Your task to perform on an android device: Open Youtube and go to "Your channel" Image 0: 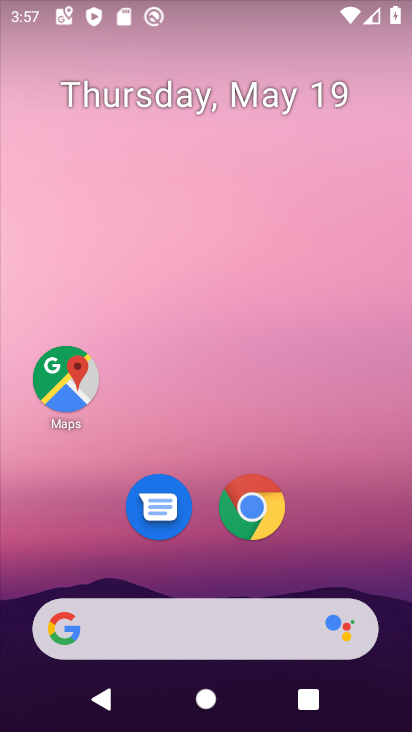
Step 0: drag from (391, 649) to (396, 171)
Your task to perform on an android device: Open Youtube and go to "Your channel" Image 1: 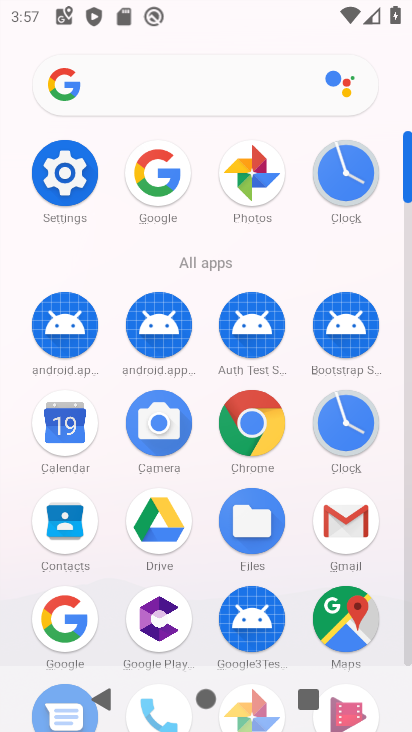
Step 1: drag from (409, 136) to (408, 56)
Your task to perform on an android device: Open Youtube and go to "Your channel" Image 2: 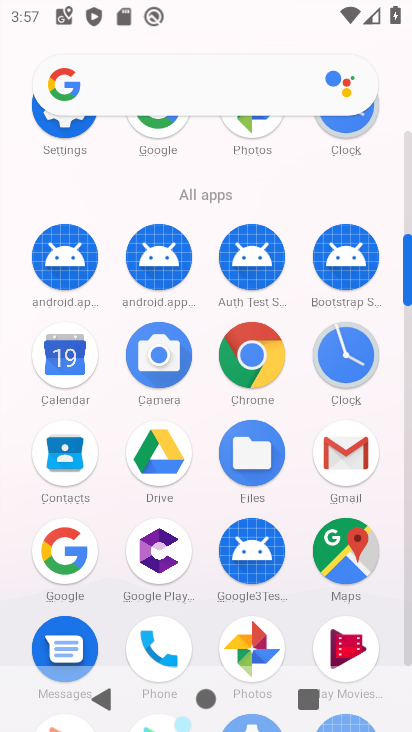
Step 2: drag from (406, 195) to (405, 137)
Your task to perform on an android device: Open Youtube and go to "Your channel" Image 3: 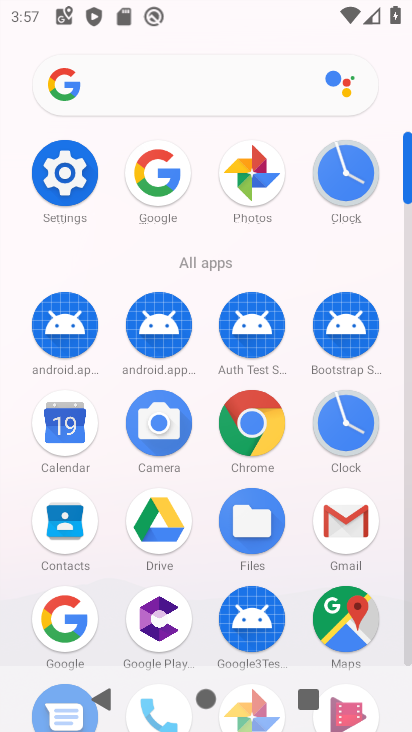
Step 3: click (408, 145)
Your task to perform on an android device: Open Youtube and go to "Your channel" Image 4: 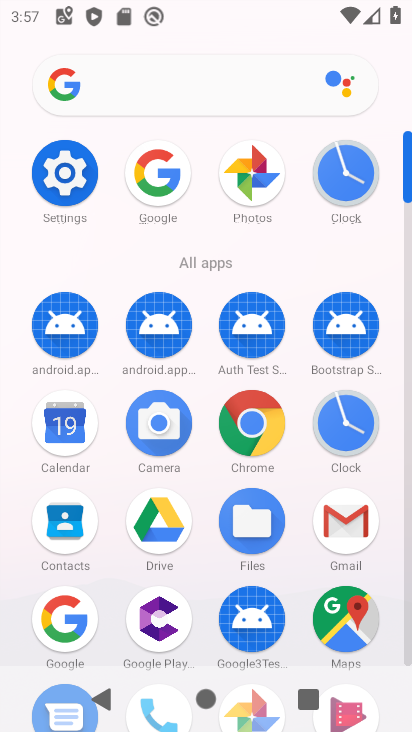
Step 4: drag from (406, 149) to (405, 74)
Your task to perform on an android device: Open Youtube and go to "Your channel" Image 5: 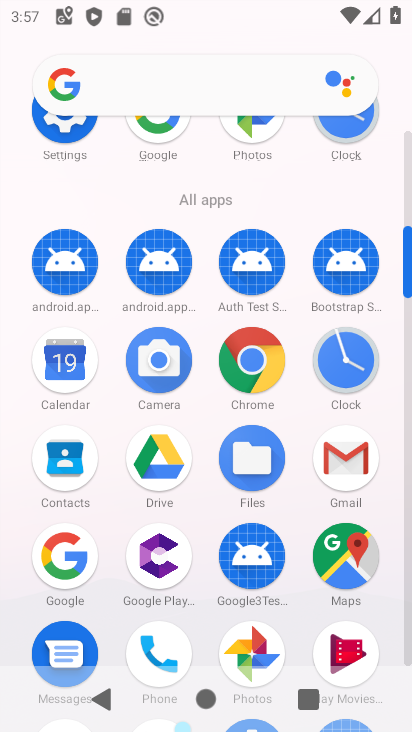
Step 5: drag from (409, 232) to (408, 127)
Your task to perform on an android device: Open Youtube and go to "Your channel" Image 6: 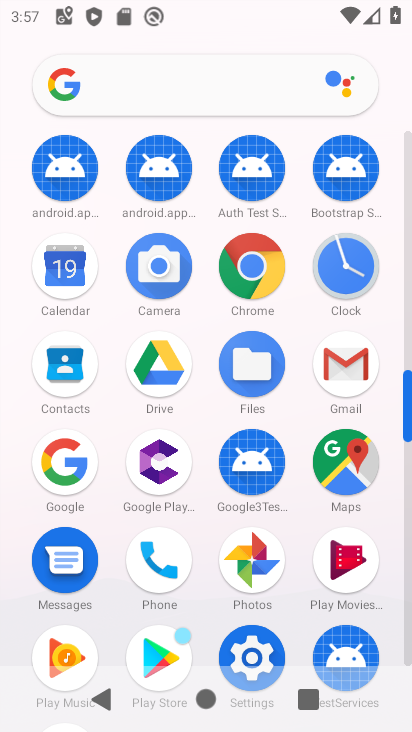
Step 6: drag from (405, 380) to (411, 153)
Your task to perform on an android device: Open Youtube and go to "Your channel" Image 7: 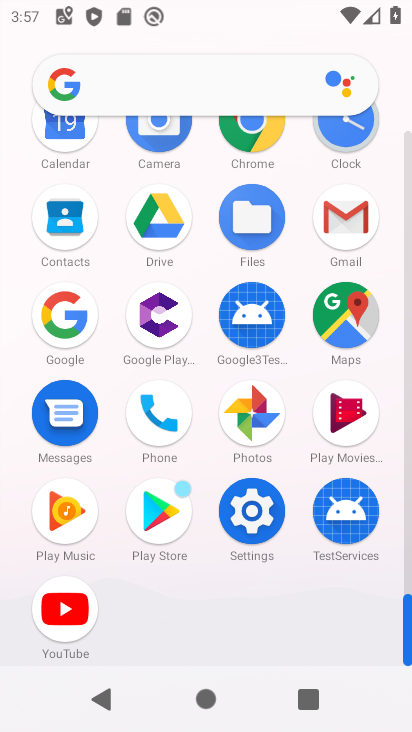
Step 7: click (56, 598)
Your task to perform on an android device: Open Youtube and go to "Your channel" Image 8: 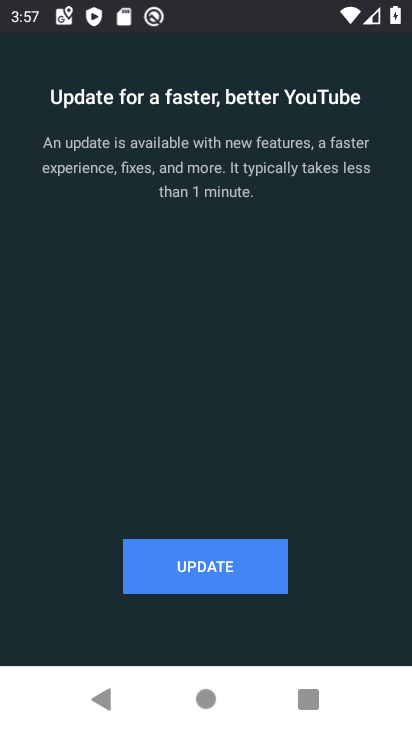
Step 8: click (213, 575)
Your task to perform on an android device: Open Youtube and go to "Your channel" Image 9: 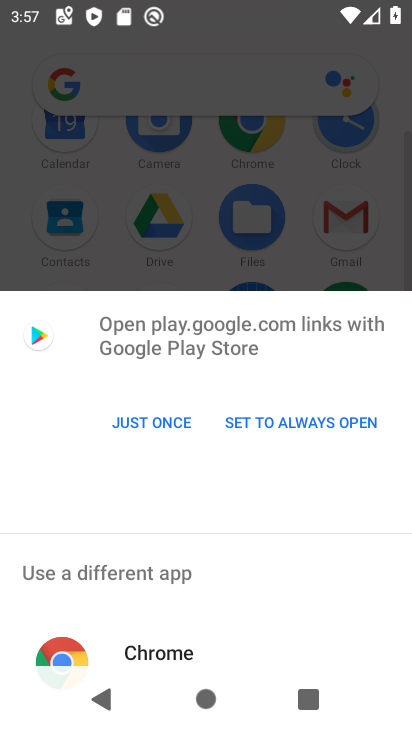
Step 9: click (180, 416)
Your task to perform on an android device: Open Youtube and go to "Your channel" Image 10: 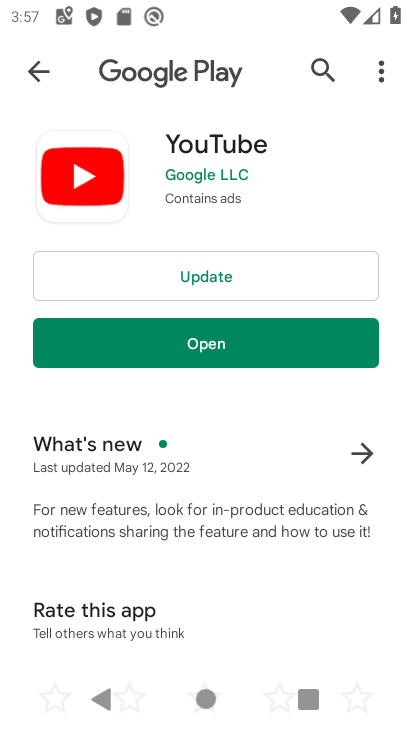
Step 10: click (218, 285)
Your task to perform on an android device: Open Youtube and go to "Your channel" Image 11: 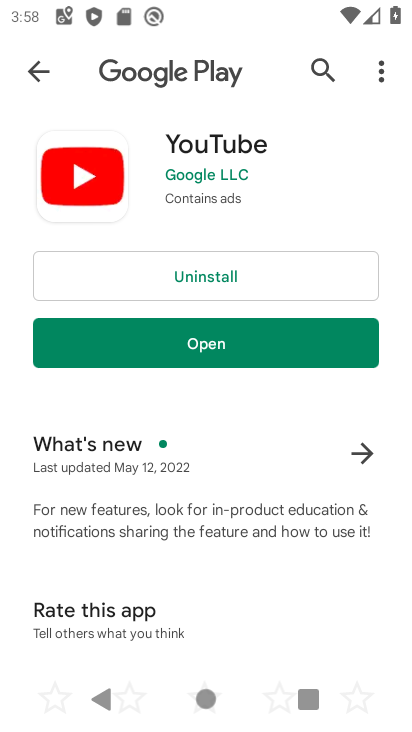
Step 11: click (299, 334)
Your task to perform on an android device: Open Youtube and go to "Your channel" Image 12: 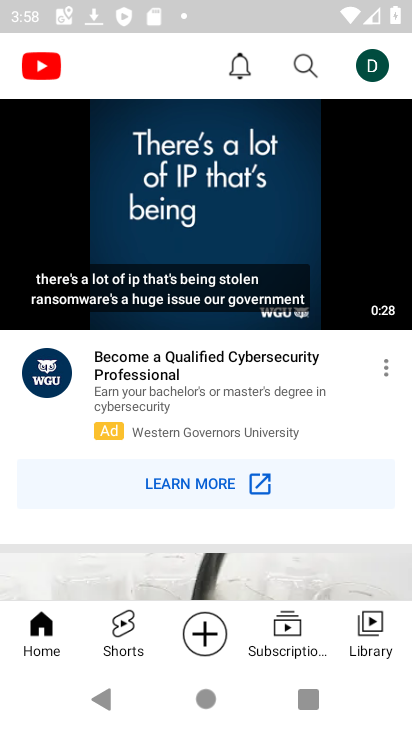
Step 12: click (375, 73)
Your task to perform on an android device: Open Youtube and go to "Your channel" Image 13: 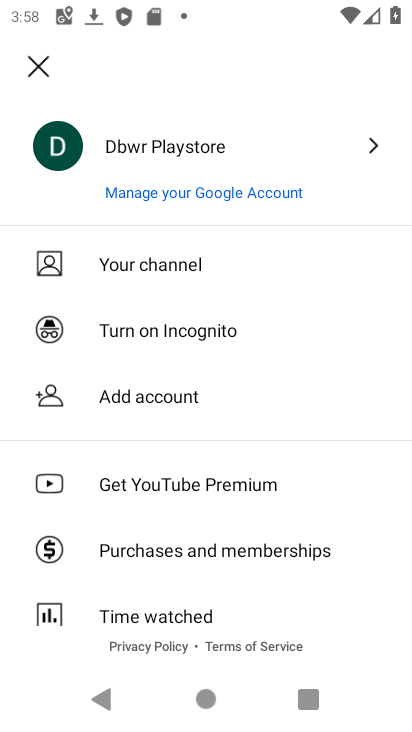
Step 13: click (152, 265)
Your task to perform on an android device: Open Youtube and go to "Your channel" Image 14: 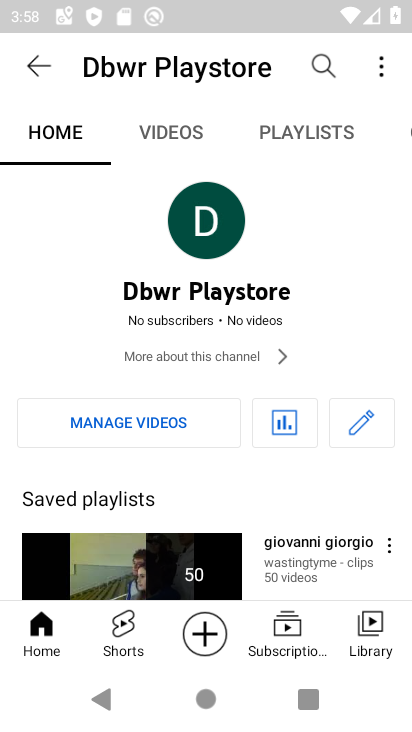
Step 14: task complete